Your task to perform on an android device: turn off picture-in-picture Image 0: 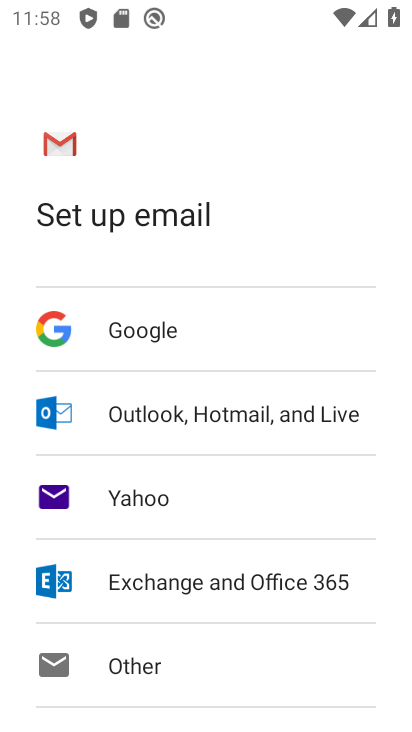
Step 0: press home button
Your task to perform on an android device: turn off picture-in-picture Image 1: 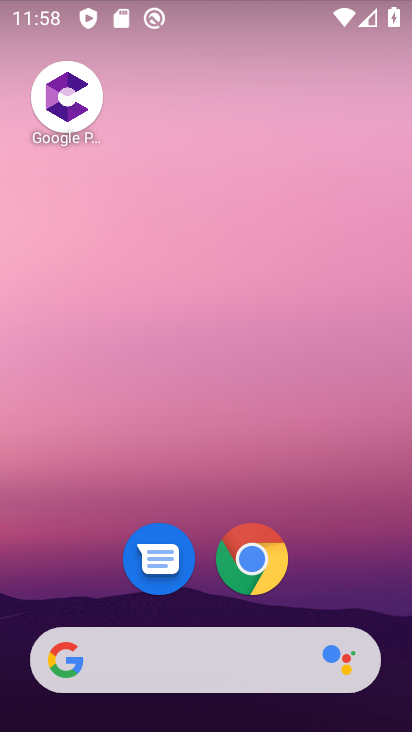
Step 1: drag from (261, 563) to (296, 510)
Your task to perform on an android device: turn off picture-in-picture Image 2: 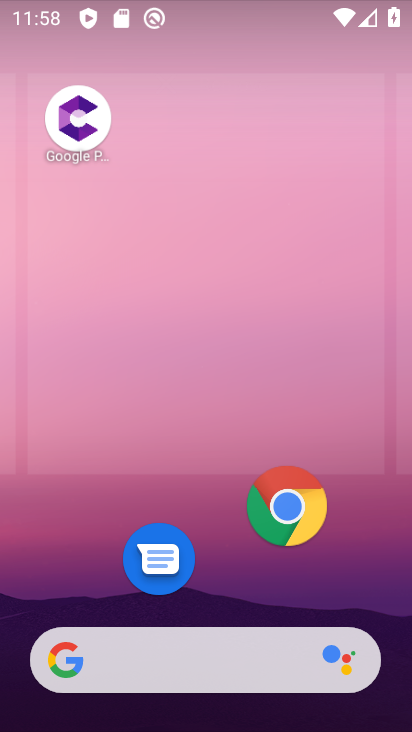
Step 2: click (252, 390)
Your task to perform on an android device: turn off picture-in-picture Image 3: 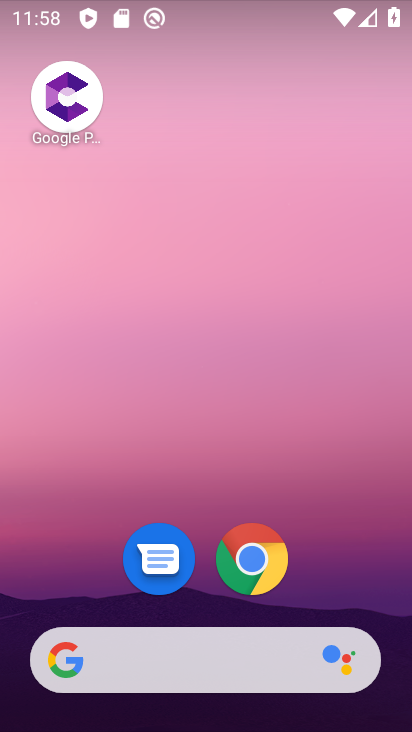
Step 3: click (271, 599)
Your task to perform on an android device: turn off picture-in-picture Image 4: 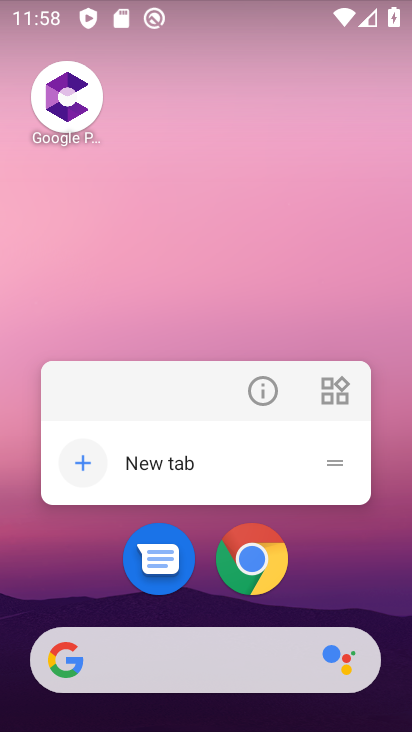
Step 4: click (269, 404)
Your task to perform on an android device: turn off picture-in-picture Image 5: 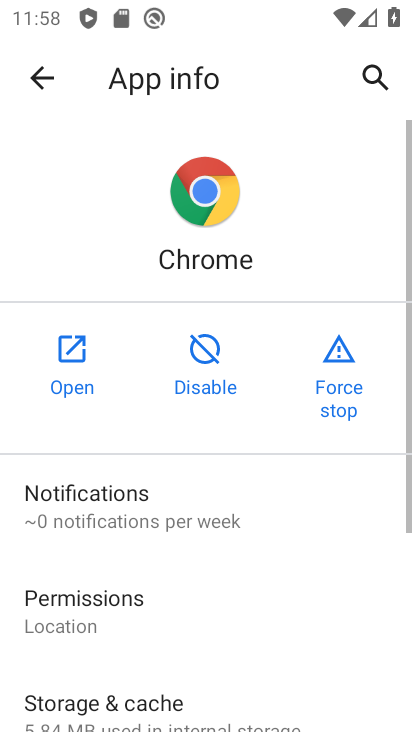
Step 5: drag from (241, 611) to (225, 232)
Your task to perform on an android device: turn off picture-in-picture Image 6: 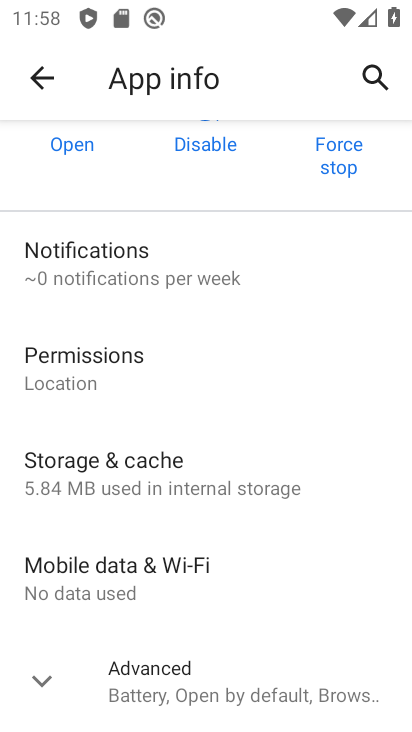
Step 6: click (208, 677)
Your task to perform on an android device: turn off picture-in-picture Image 7: 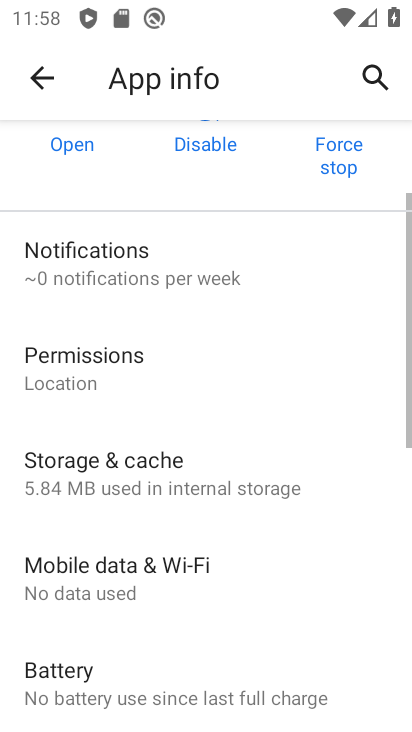
Step 7: drag from (209, 670) to (267, 204)
Your task to perform on an android device: turn off picture-in-picture Image 8: 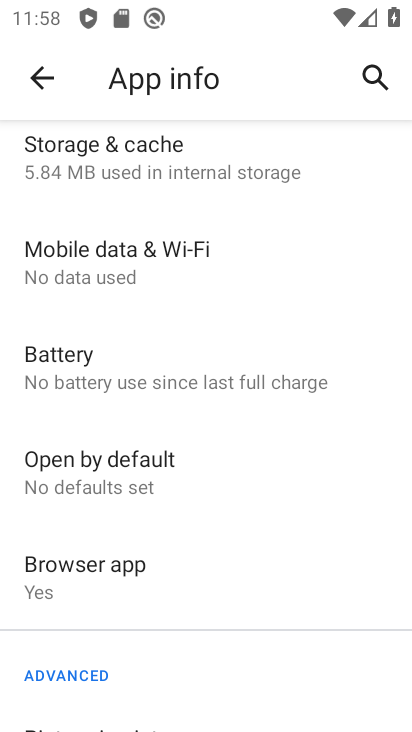
Step 8: drag from (203, 576) to (256, 131)
Your task to perform on an android device: turn off picture-in-picture Image 9: 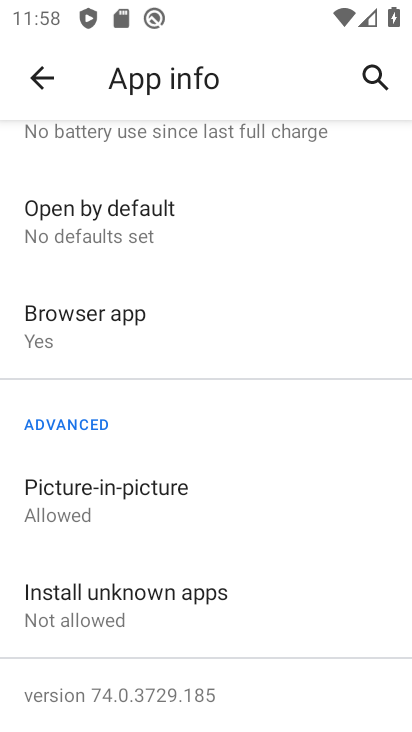
Step 9: click (197, 503)
Your task to perform on an android device: turn off picture-in-picture Image 10: 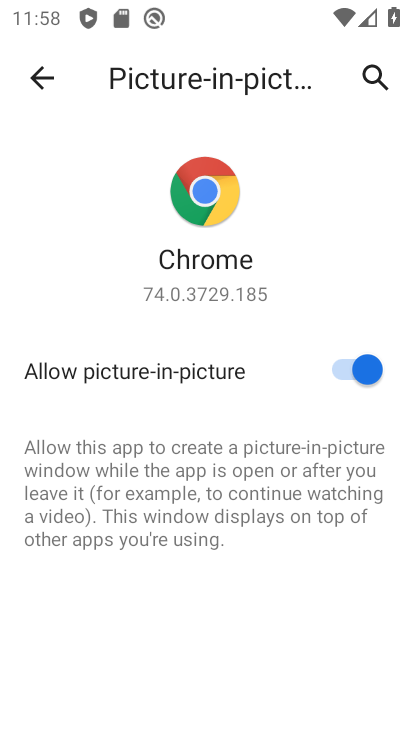
Step 10: click (371, 368)
Your task to perform on an android device: turn off picture-in-picture Image 11: 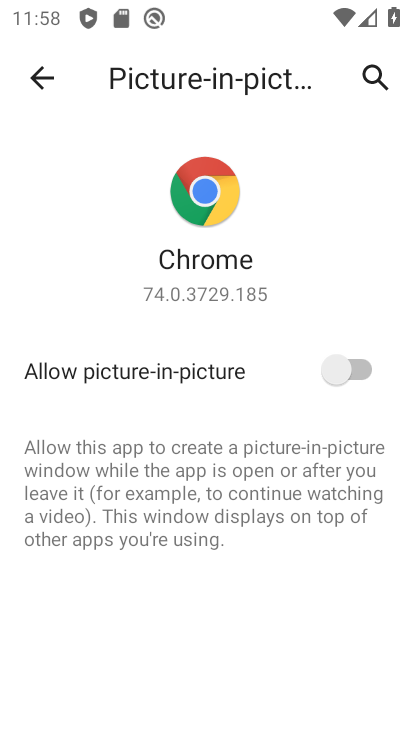
Step 11: task complete